Your task to perform on an android device: clear all cookies in the chrome app Image 0: 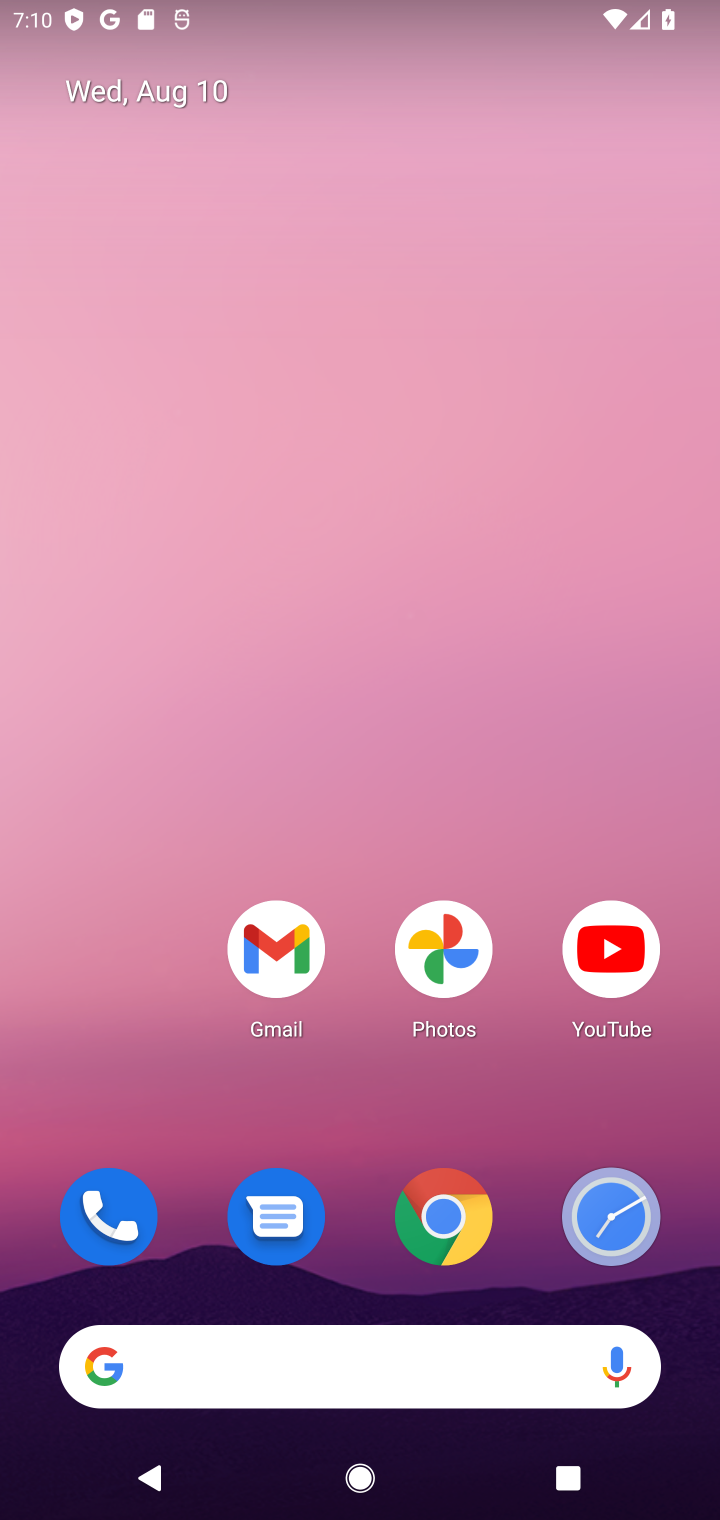
Step 0: press home button
Your task to perform on an android device: clear all cookies in the chrome app Image 1: 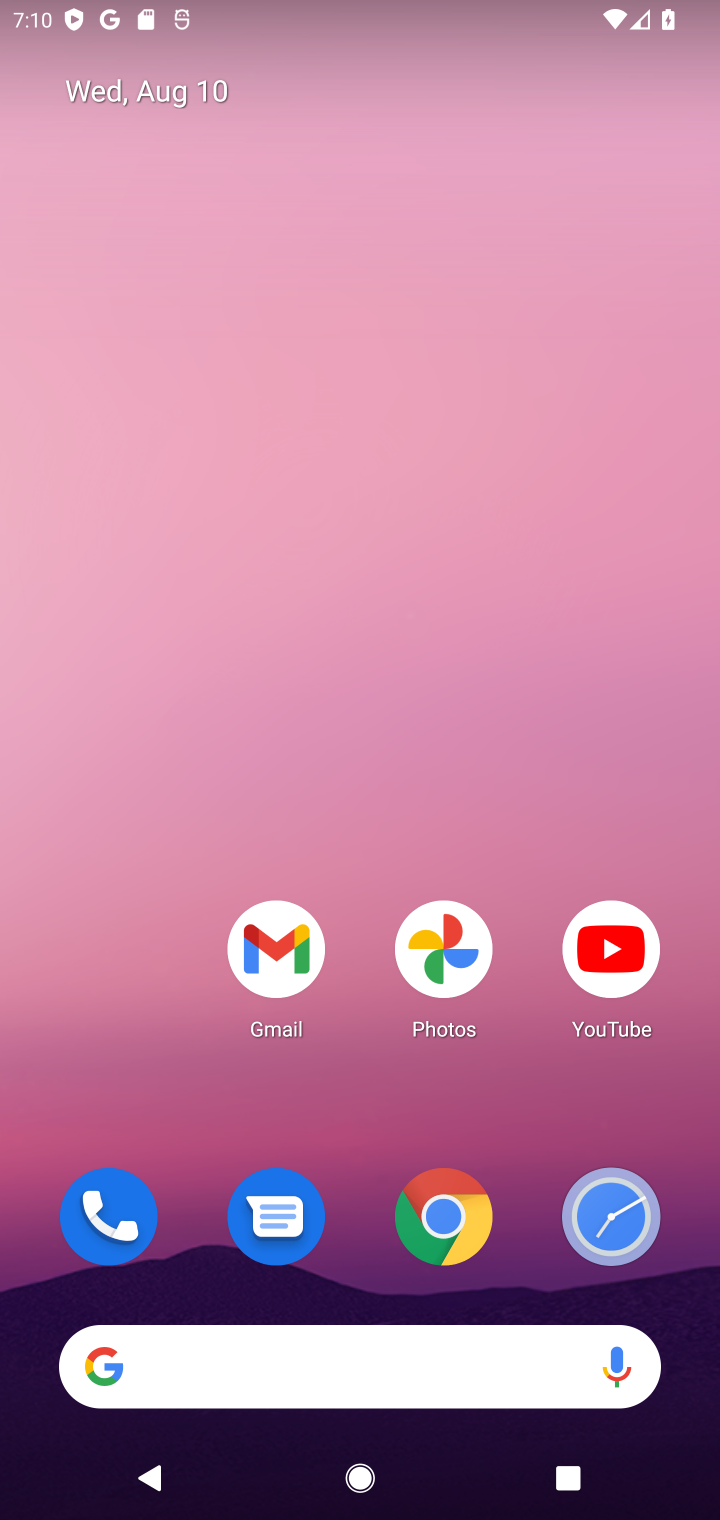
Step 1: click (451, 1209)
Your task to perform on an android device: clear all cookies in the chrome app Image 2: 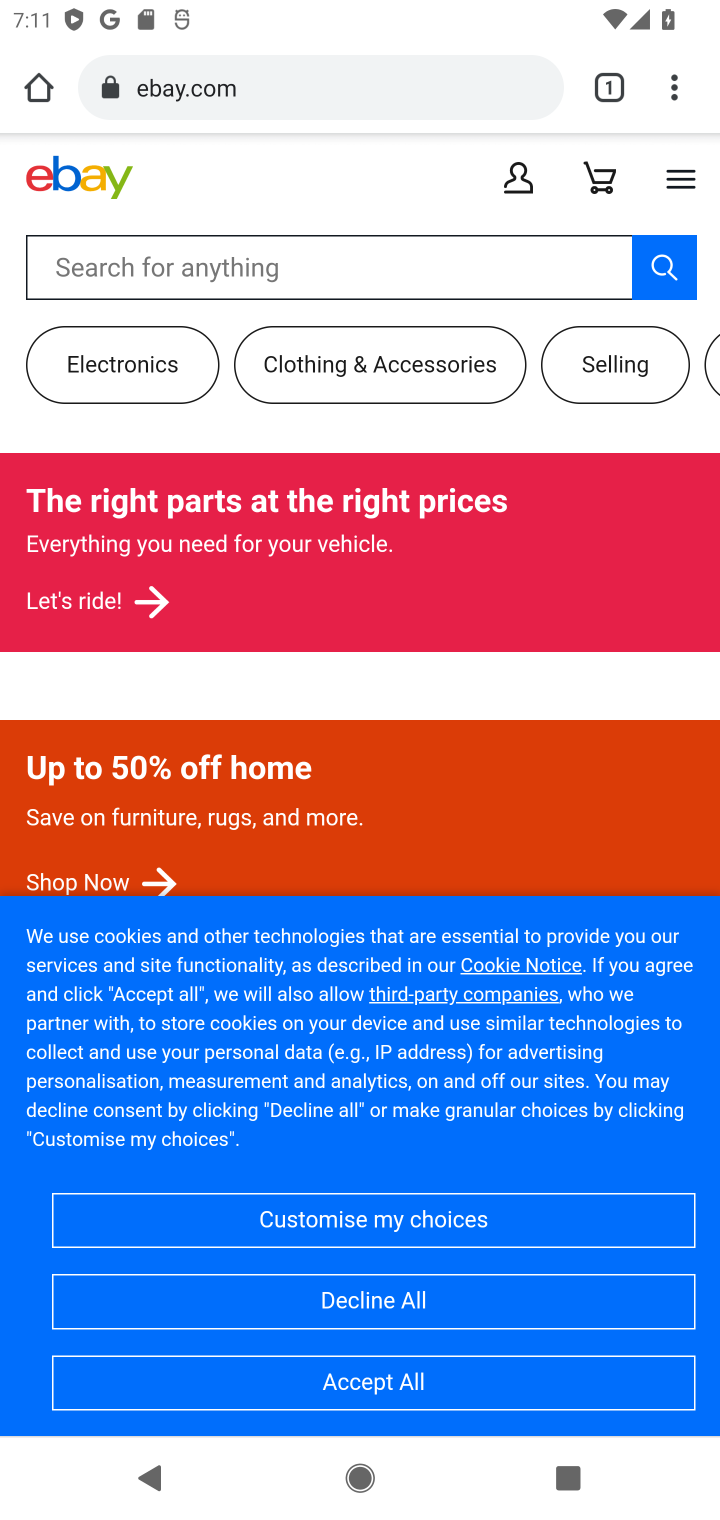
Step 2: press home button
Your task to perform on an android device: clear all cookies in the chrome app Image 3: 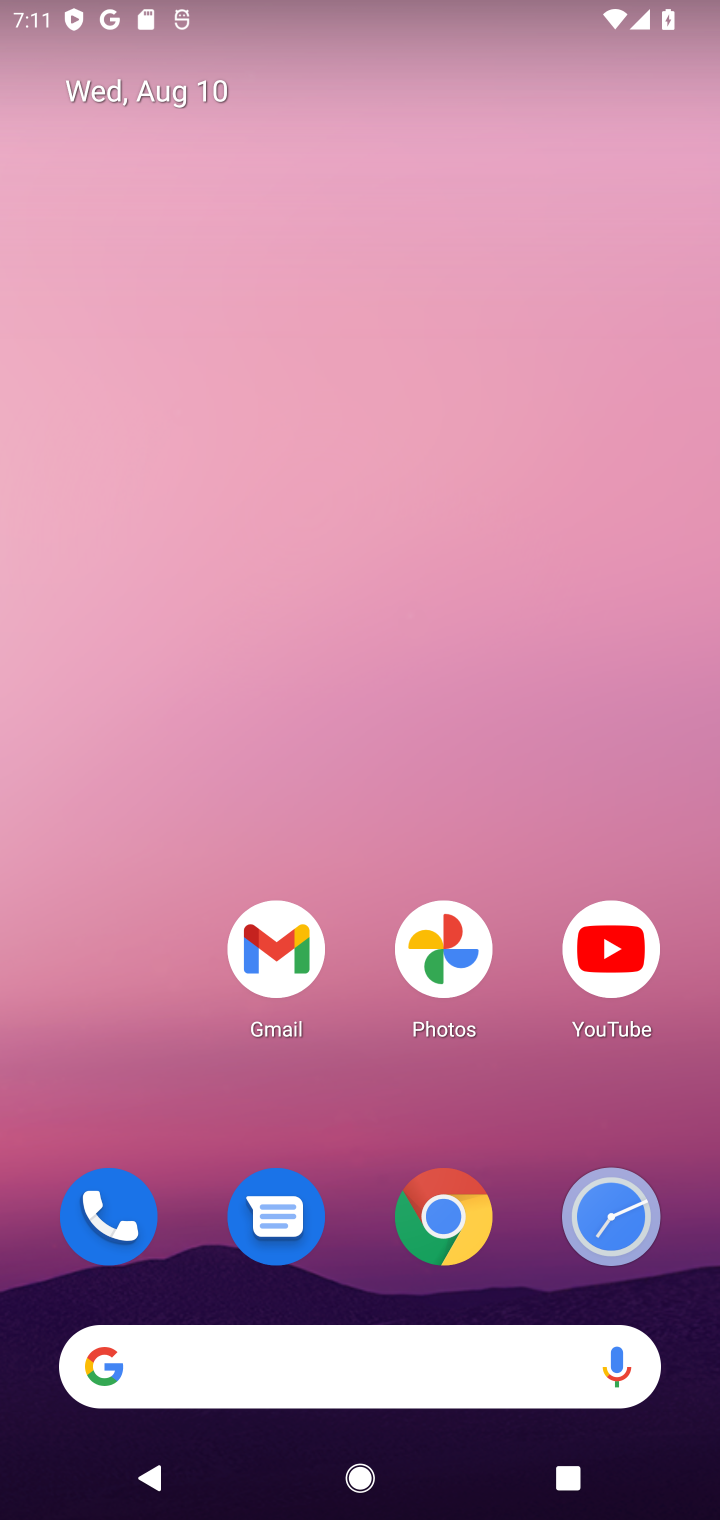
Step 3: click (424, 1206)
Your task to perform on an android device: clear all cookies in the chrome app Image 4: 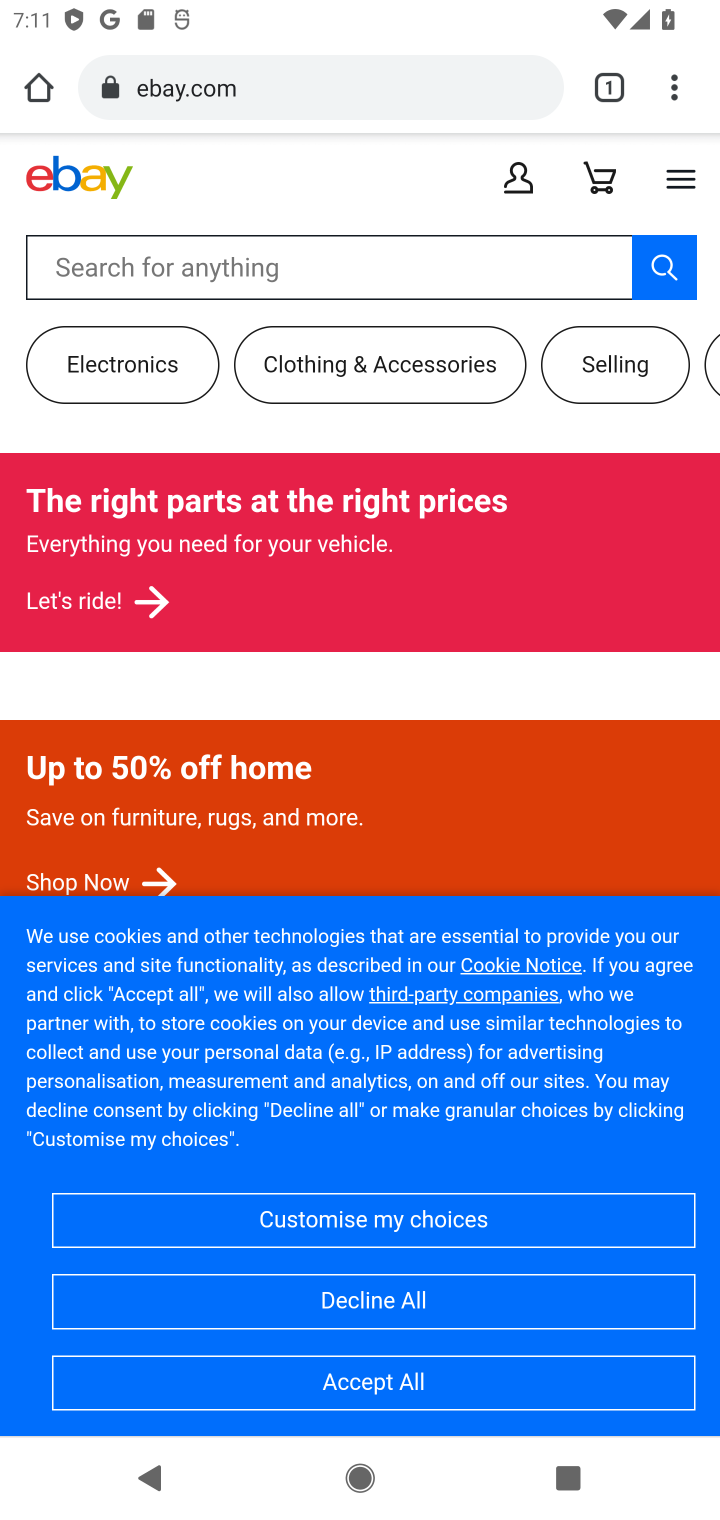
Step 4: click (661, 86)
Your task to perform on an android device: clear all cookies in the chrome app Image 5: 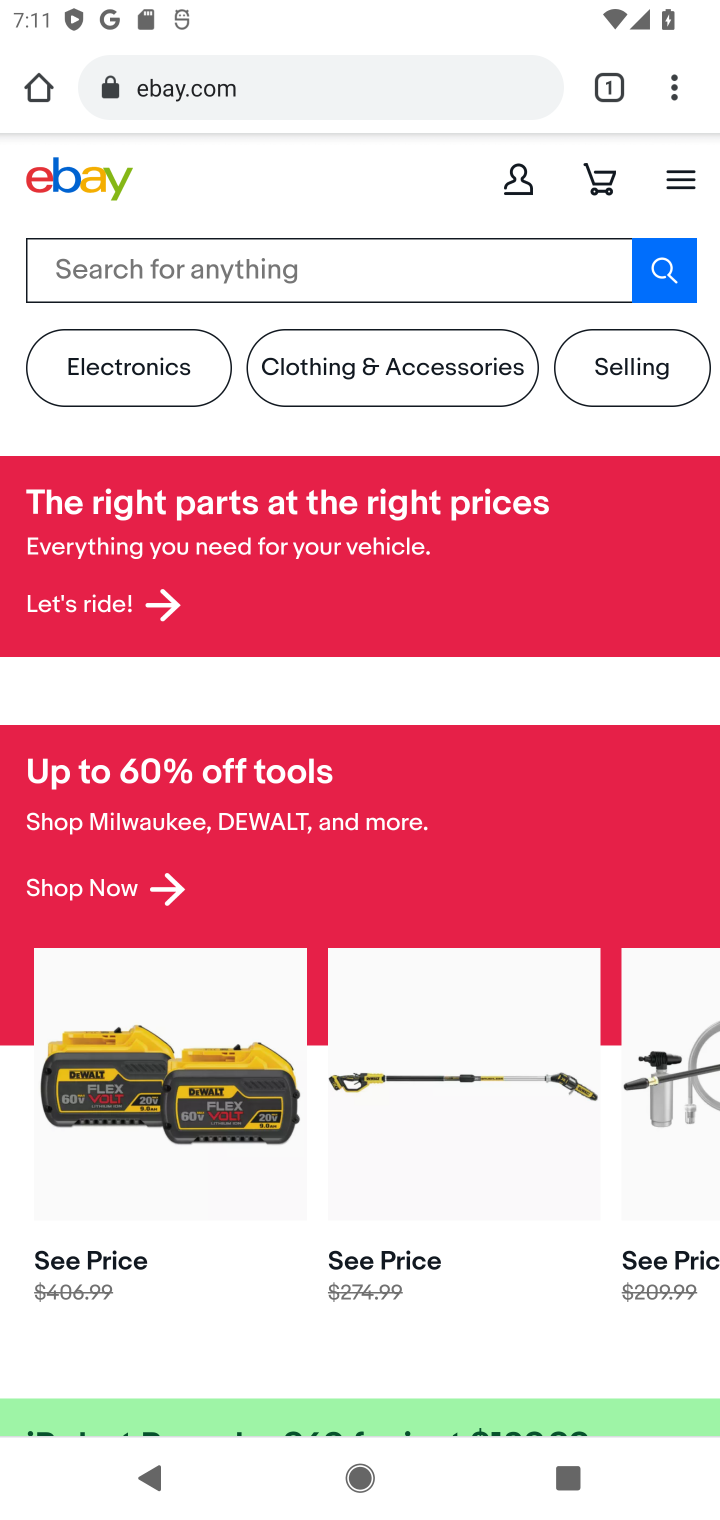
Step 5: click (674, 90)
Your task to perform on an android device: clear all cookies in the chrome app Image 6: 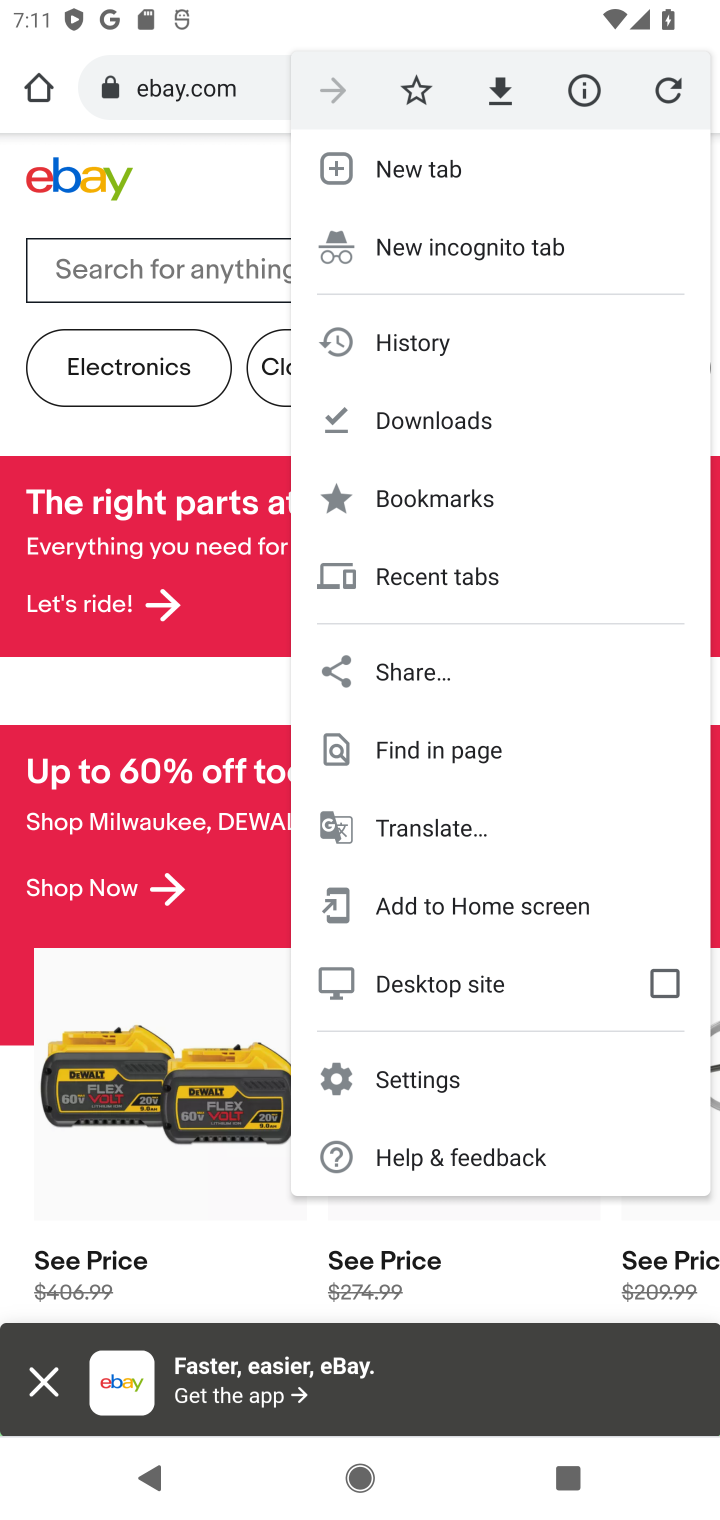
Step 6: click (422, 1085)
Your task to perform on an android device: clear all cookies in the chrome app Image 7: 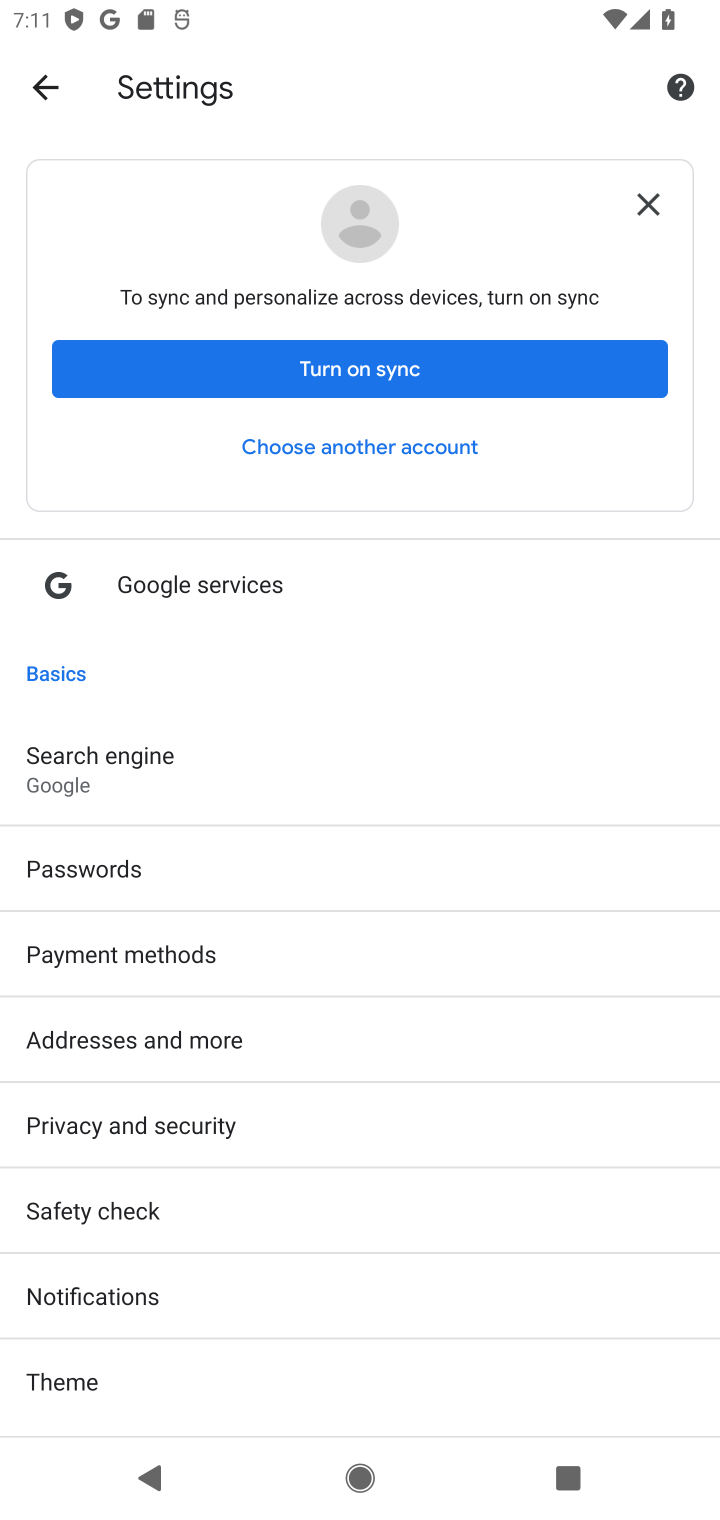
Step 7: click (640, 201)
Your task to perform on an android device: clear all cookies in the chrome app Image 8: 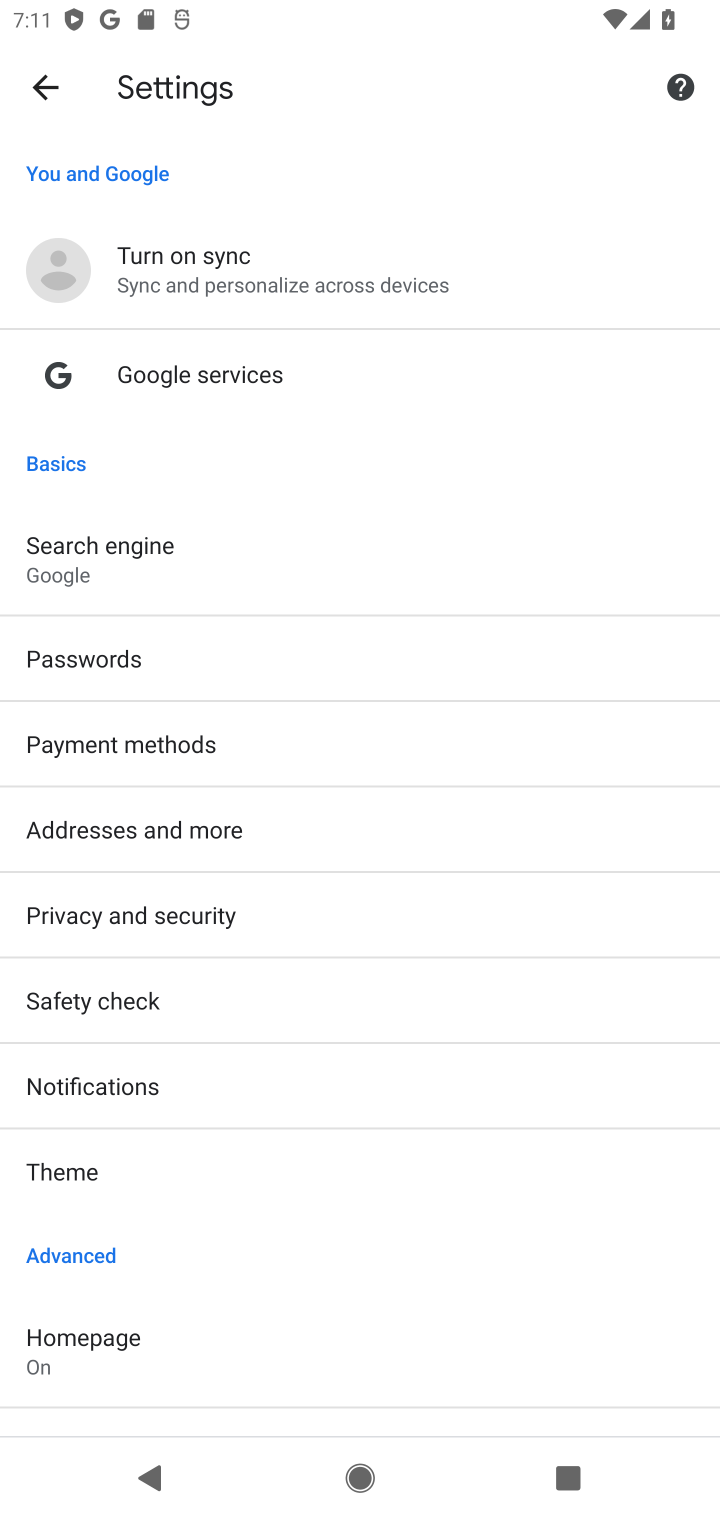
Step 8: drag from (106, 844) to (342, 338)
Your task to perform on an android device: clear all cookies in the chrome app Image 9: 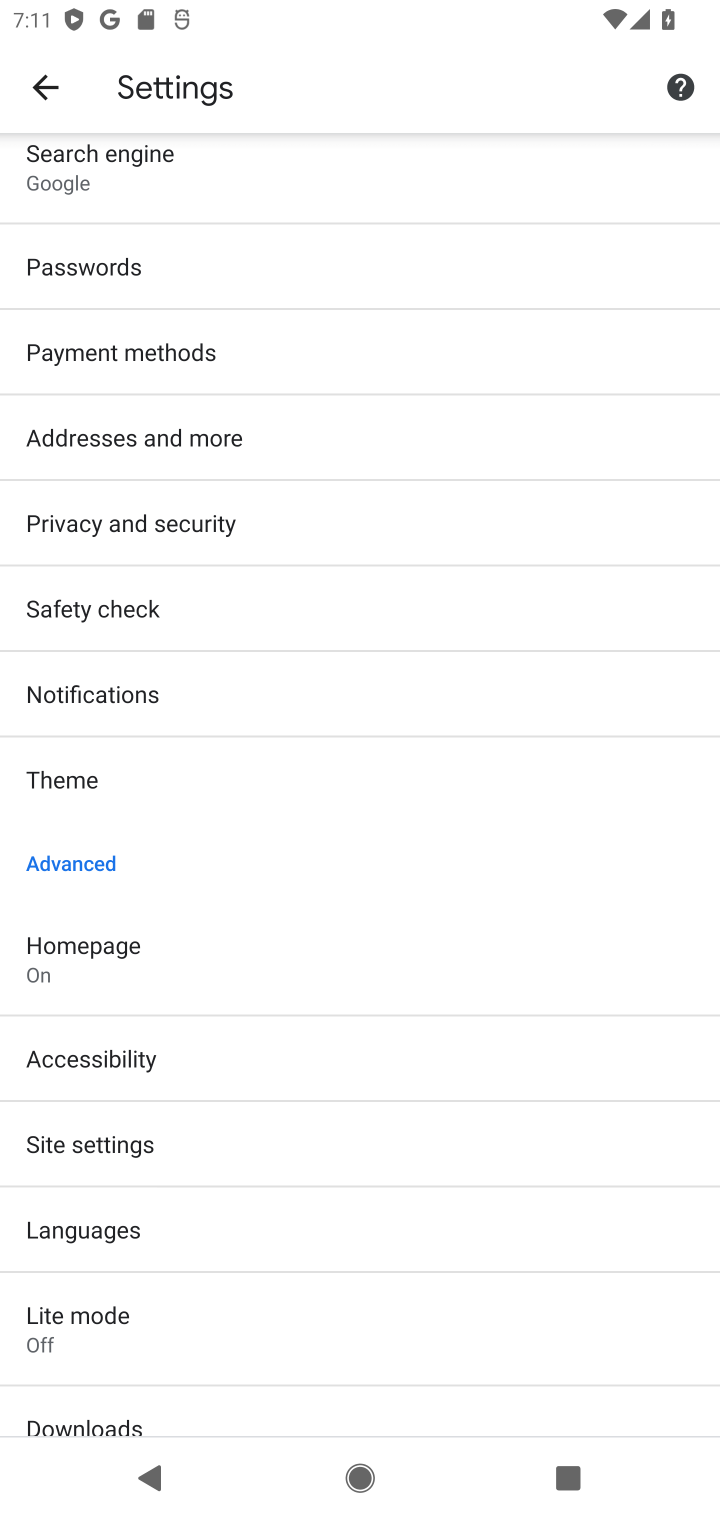
Step 9: click (208, 502)
Your task to perform on an android device: clear all cookies in the chrome app Image 10: 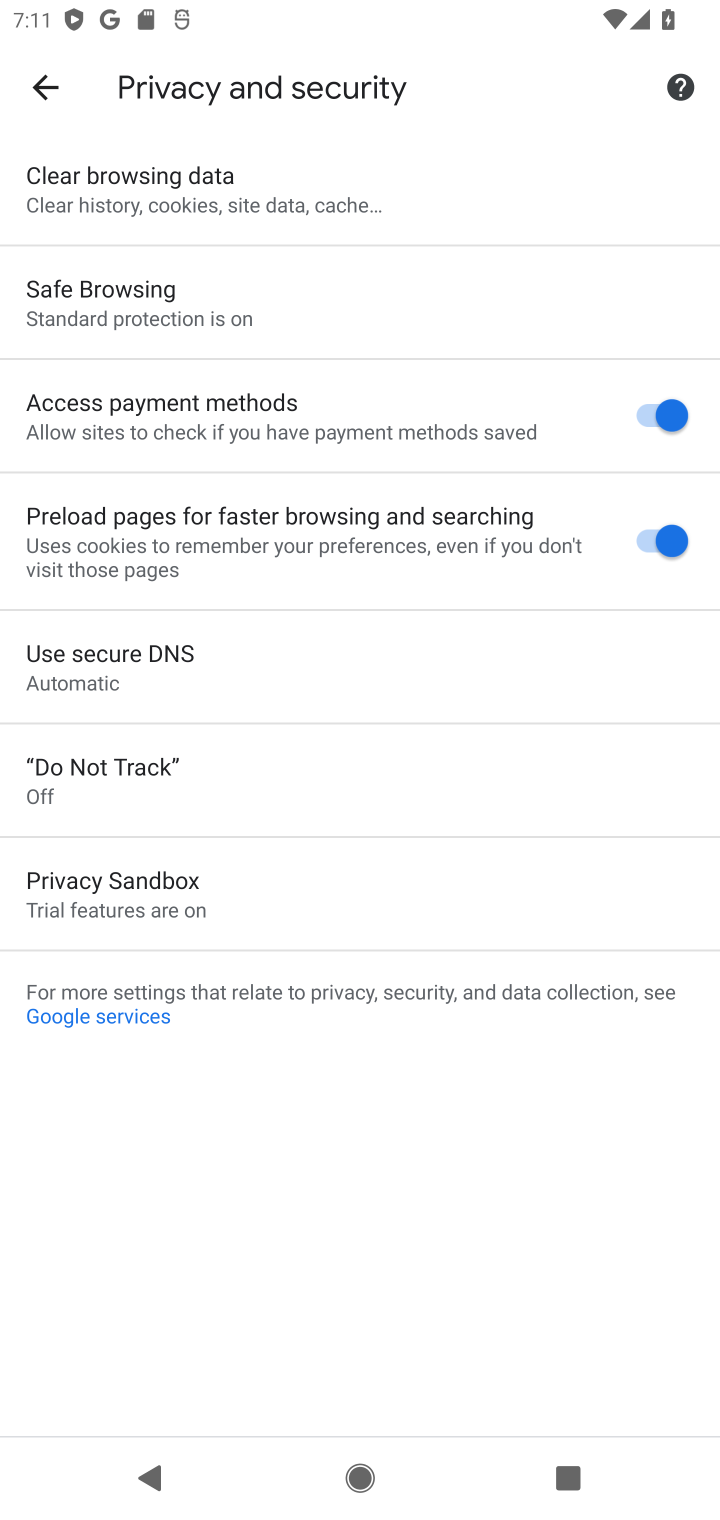
Step 10: click (223, 177)
Your task to perform on an android device: clear all cookies in the chrome app Image 11: 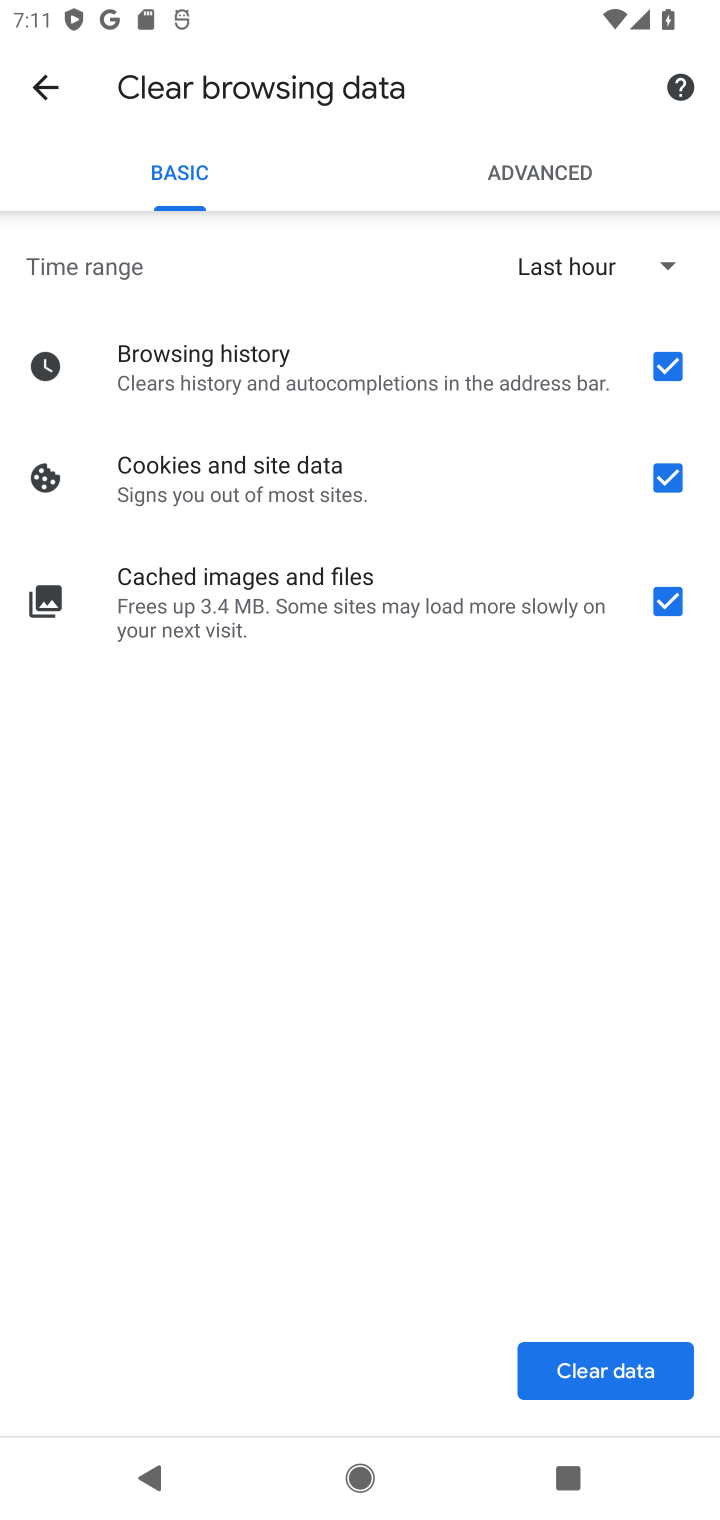
Step 11: click (669, 379)
Your task to perform on an android device: clear all cookies in the chrome app Image 12: 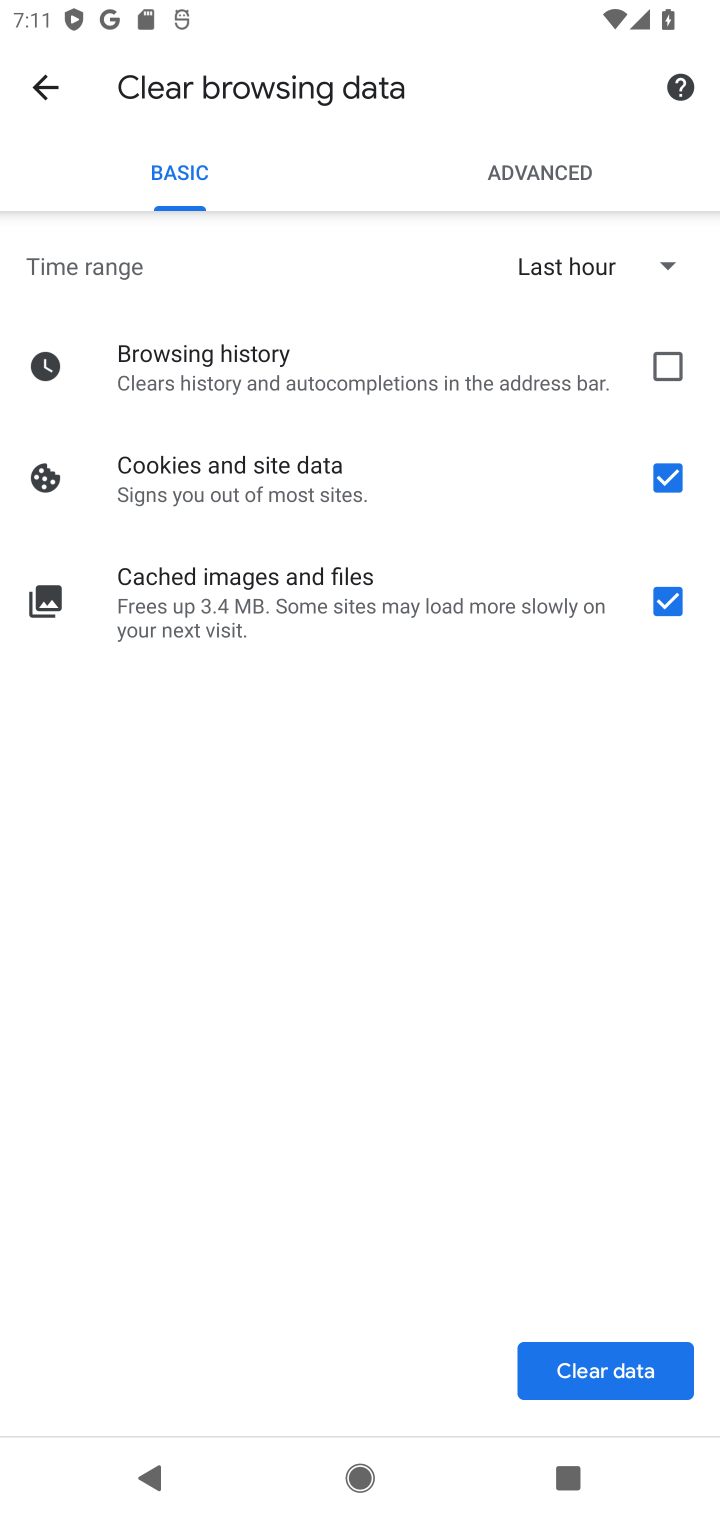
Step 12: click (672, 604)
Your task to perform on an android device: clear all cookies in the chrome app Image 13: 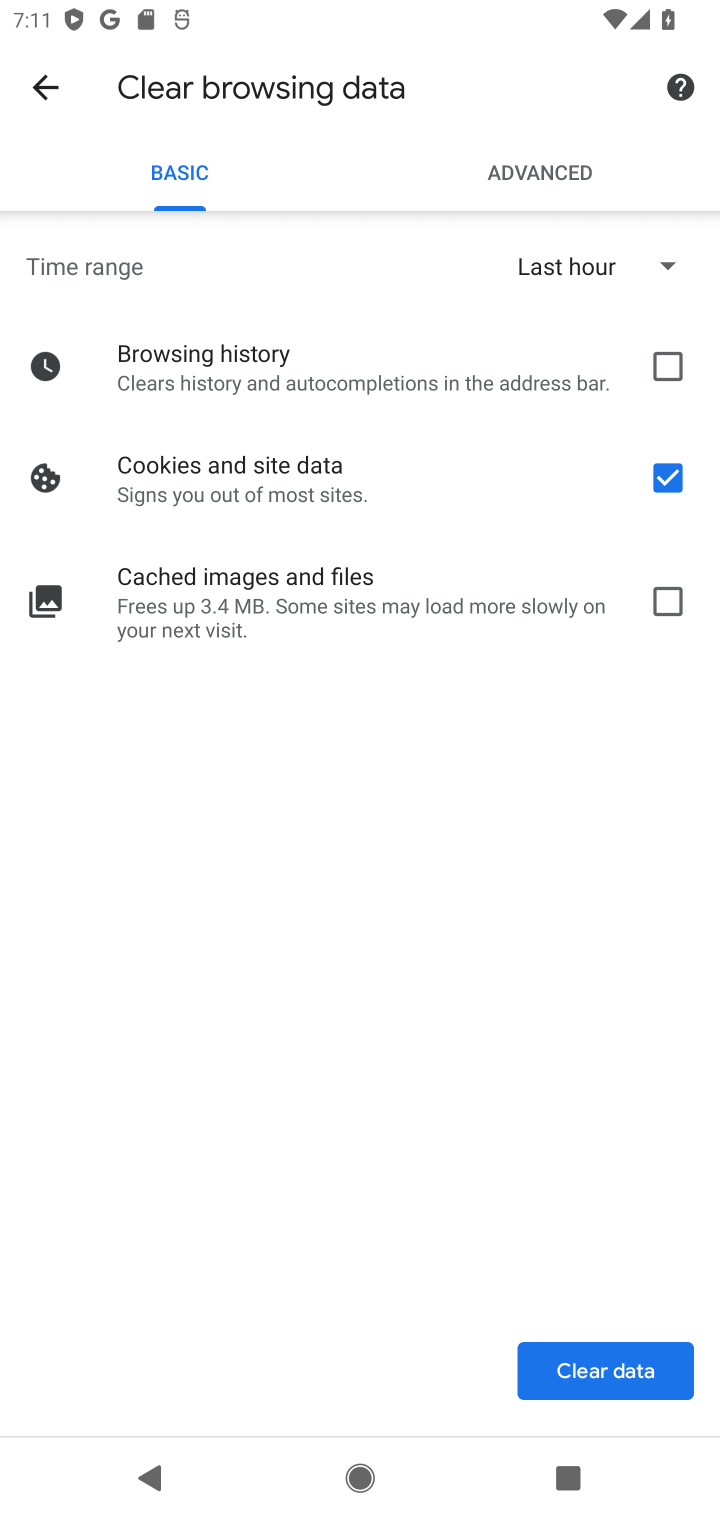
Step 13: click (593, 1371)
Your task to perform on an android device: clear all cookies in the chrome app Image 14: 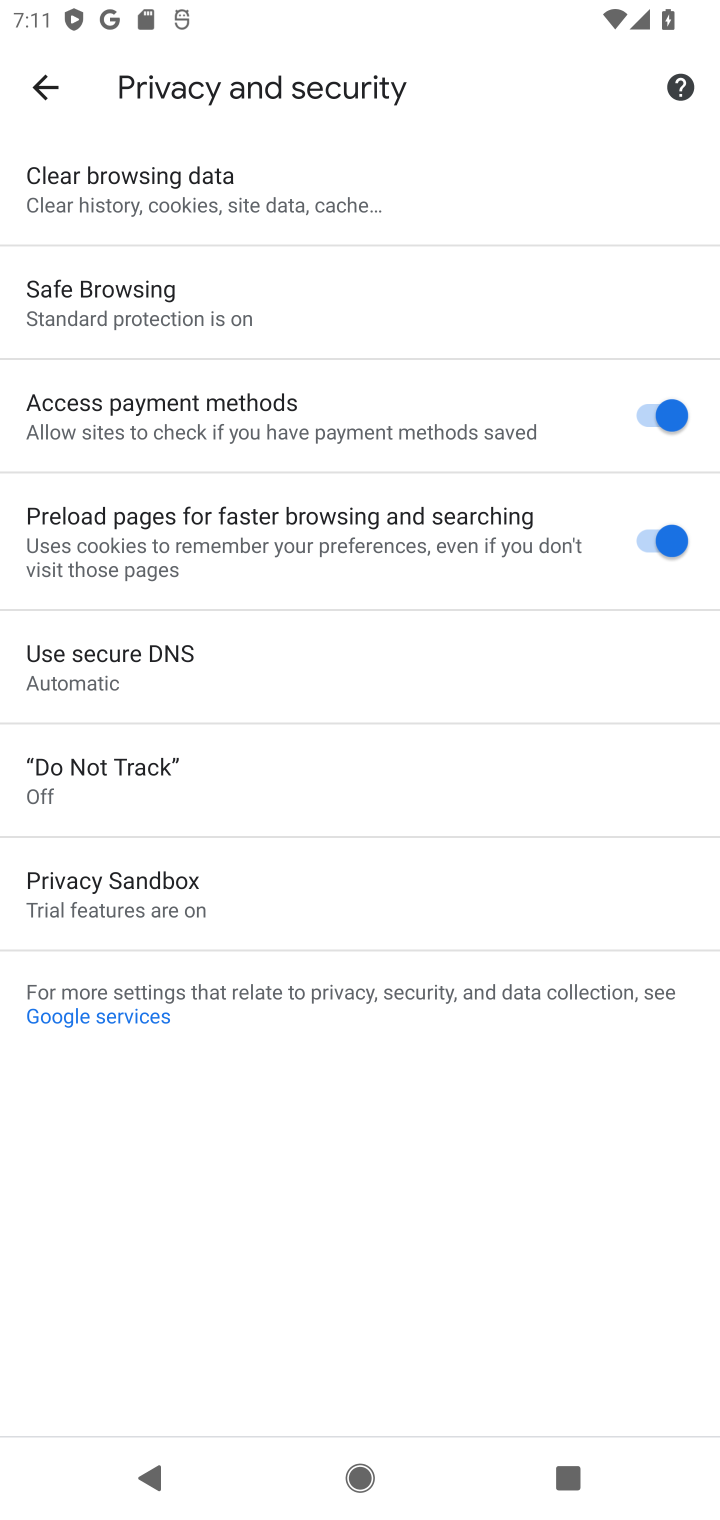
Step 14: task complete